Your task to perform on an android device: turn off improve location accuracy Image 0: 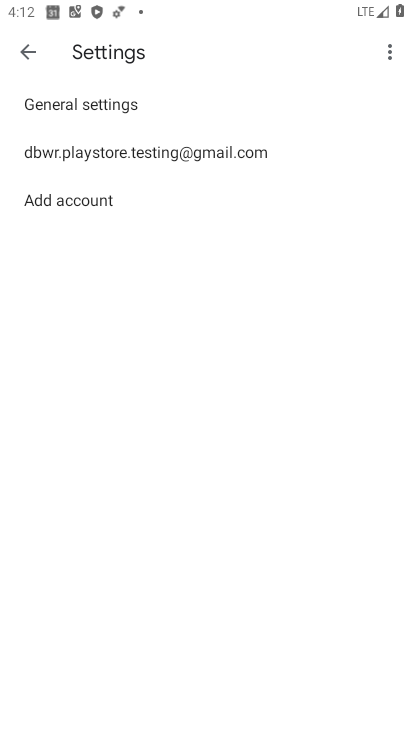
Step 0: press home button
Your task to perform on an android device: turn off improve location accuracy Image 1: 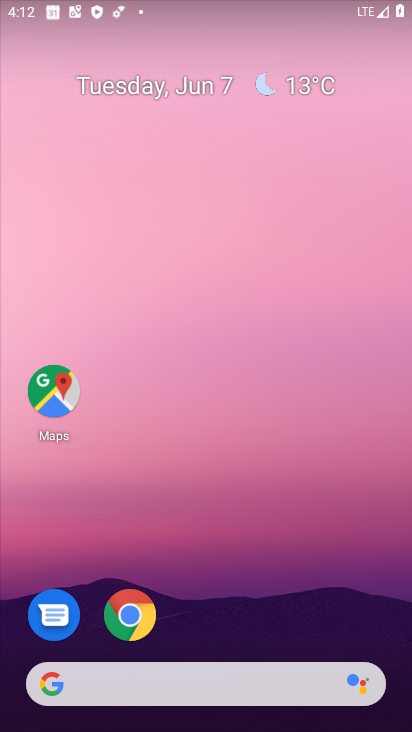
Step 1: drag from (194, 716) to (197, 197)
Your task to perform on an android device: turn off improve location accuracy Image 2: 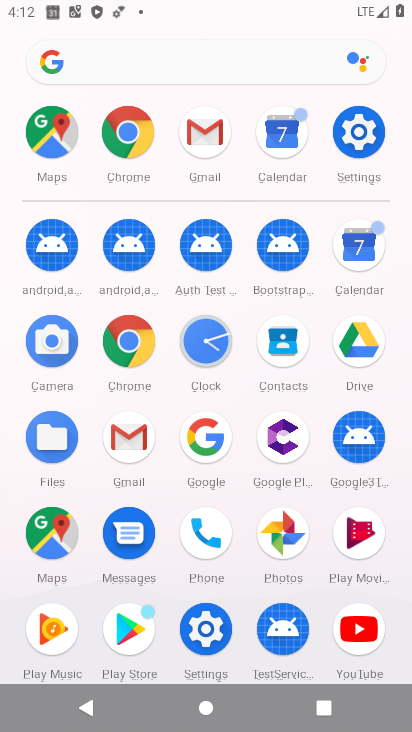
Step 2: click (212, 620)
Your task to perform on an android device: turn off improve location accuracy Image 3: 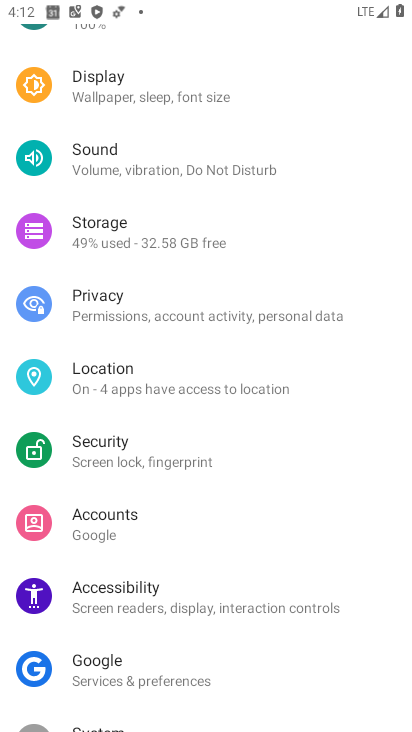
Step 3: click (100, 373)
Your task to perform on an android device: turn off improve location accuracy Image 4: 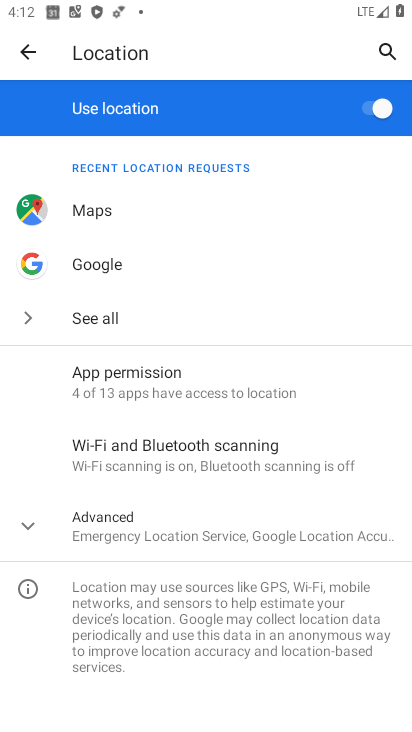
Step 4: click (120, 531)
Your task to perform on an android device: turn off improve location accuracy Image 5: 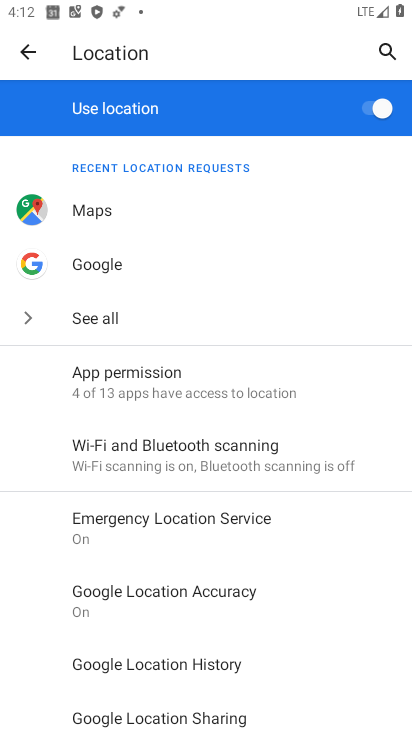
Step 5: click (163, 584)
Your task to perform on an android device: turn off improve location accuracy Image 6: 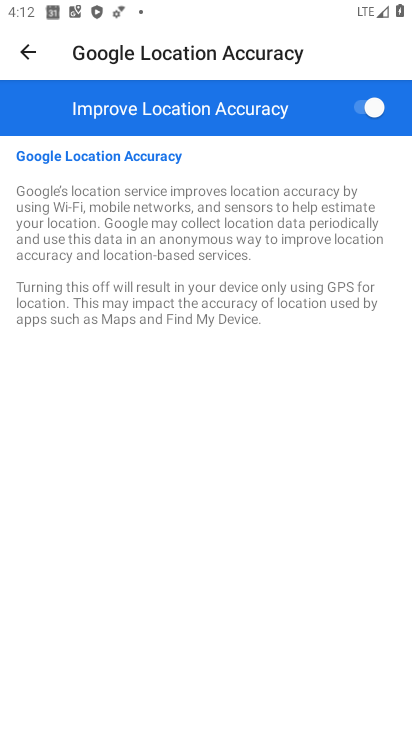
Step 6: click (358, 98)
Your task to perform on an android device: turn off improve location accuracy Image 7: 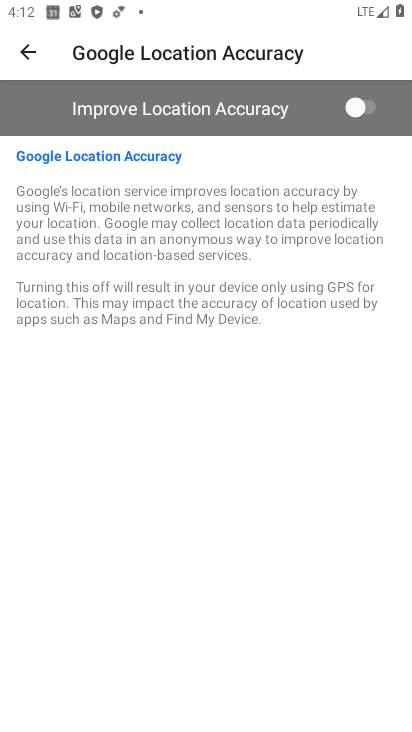
Step 7: task complete